Your task to perform on an android device: Go to network settings Image 0: 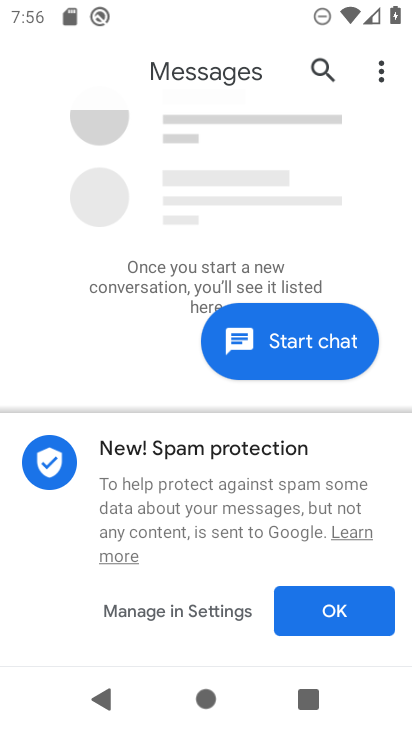
Step 0: press home button
Your task to perform on an android device: Go to network settings Image 1: 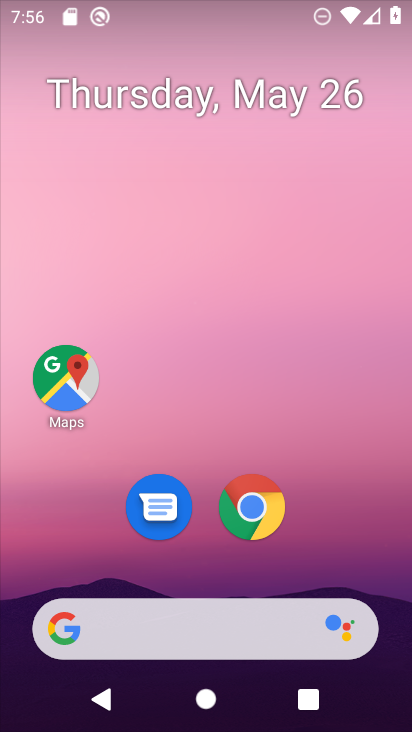
Step 1: drag from (181, 544) to (177, 231)
Your task to perform on an android device: Go to network settings Image 2: 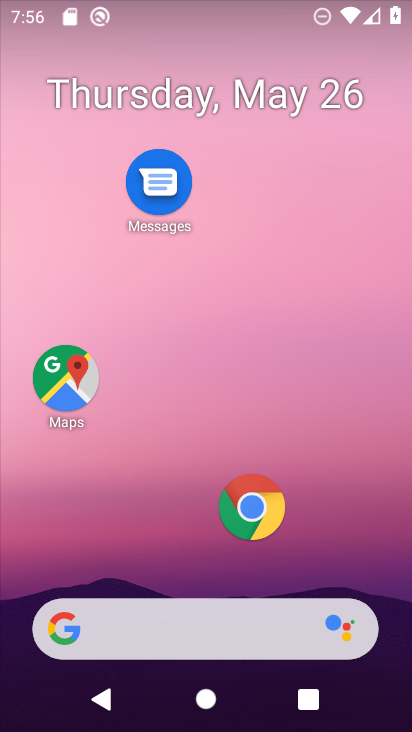
Step 2: drag from (174, 533) to (168, 182)
Your task to perform on an android device: Go to network settings Image 3: 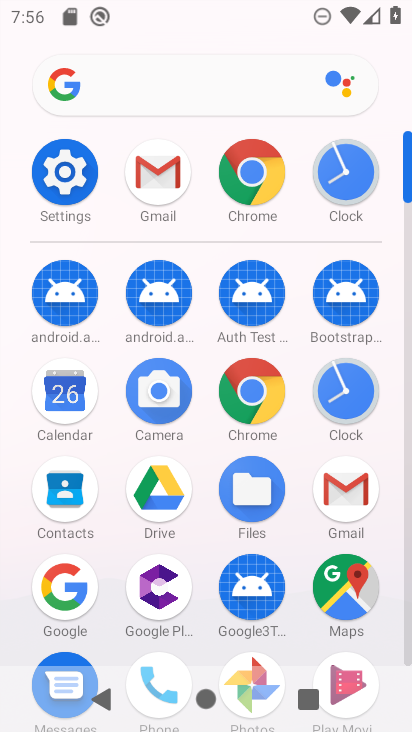
Step 3: click (45, 178)
Your task to perform on an android device: Go to network settings Image 4: 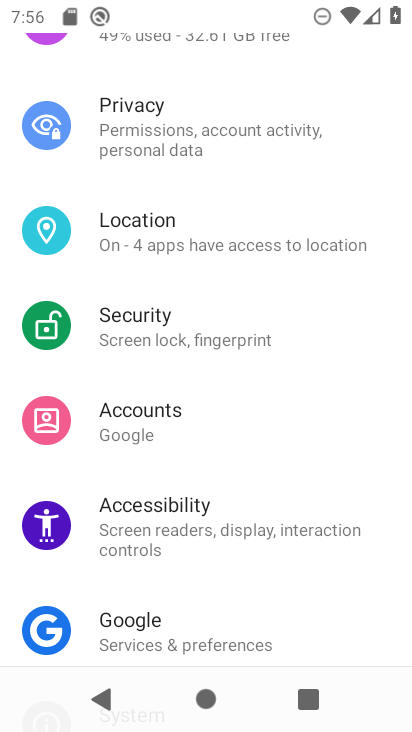
Step 4: drag from (105, 155) to (133, 684)
Your task to perform on an android device: Go to network settings Image 5: 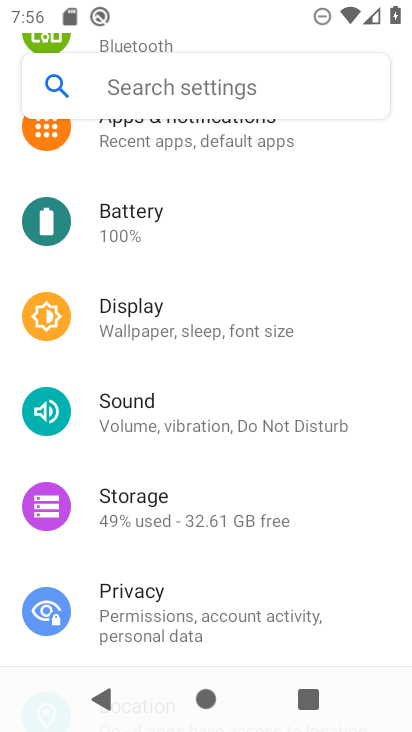
Step 5: drag from (148, 225) to (135, 725)
Your task to perform on an android device: Go to network settings Image 6: 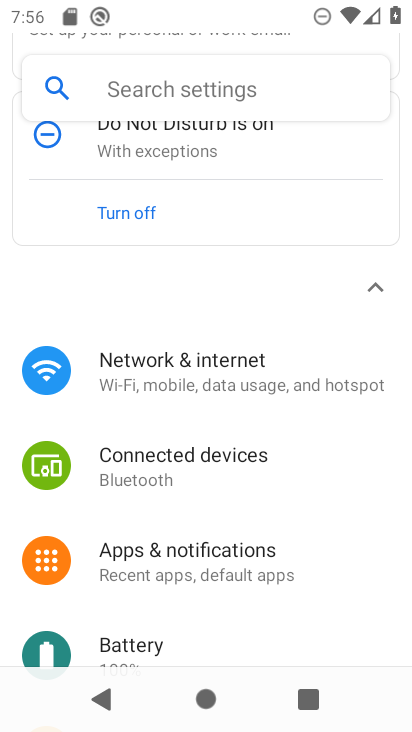
Step 6: click (103, 409)
Your task to perform on an android device: Go to network settings Image 7: 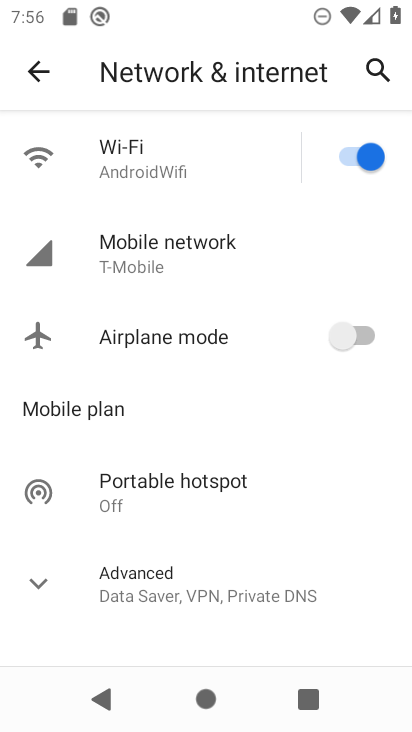
Step 7: task complete